Your task to perform on an android device: Go to accessibility settings Image 0: 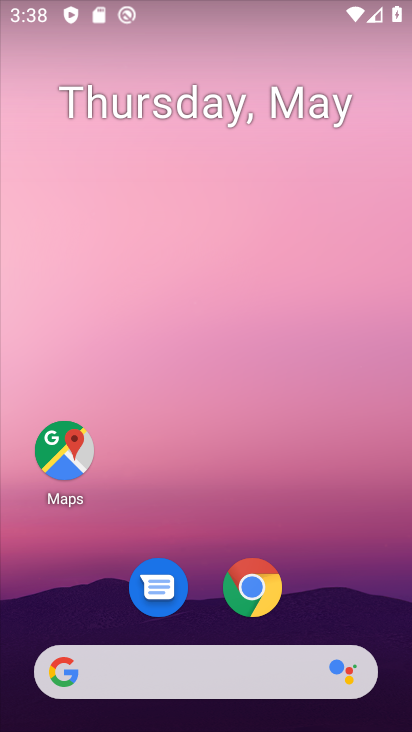
Step 0: drag from (343, 602) to (371, 214)
Your task to perform on an android device: Go to accessibility settings Image 1: 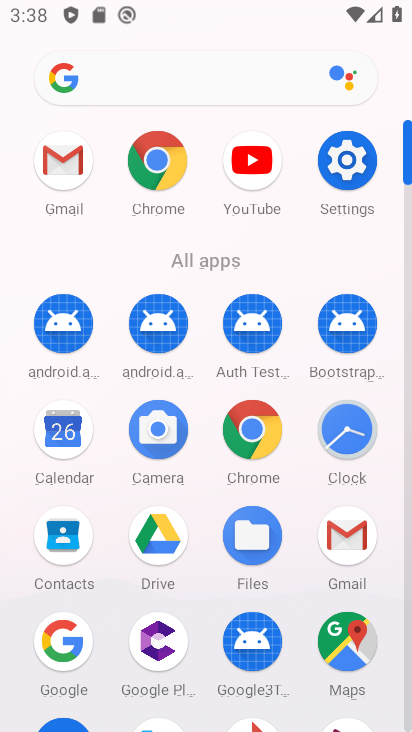
Step 1: click (340, 157)
Your task to perform on an android device: Go to accessibility settings Image 2: 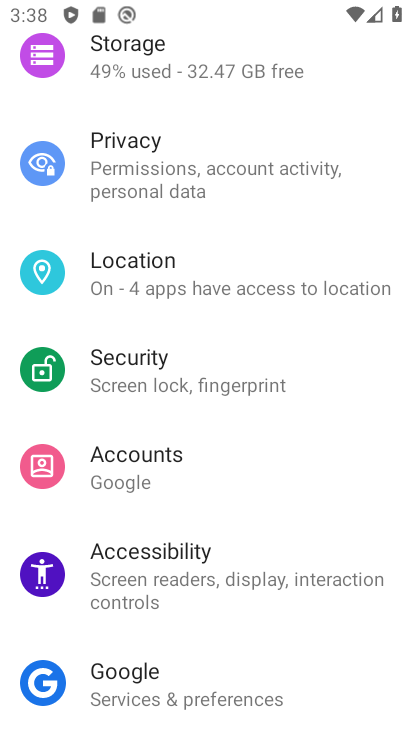
Step 2: drag from (364, 238) to (367, 339)
Your task to perform on an android device: Go to accessibility settings Image 3: 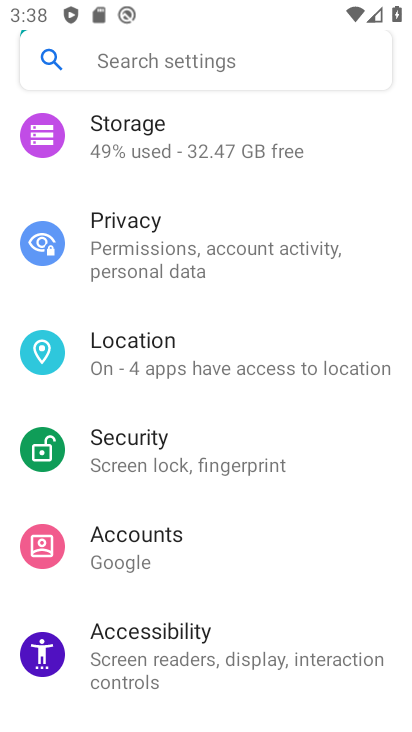
Step 3: drag from (366, 206) to (366, 340)
Your task to perform on an android device: Go to accessibility settings Image 4: 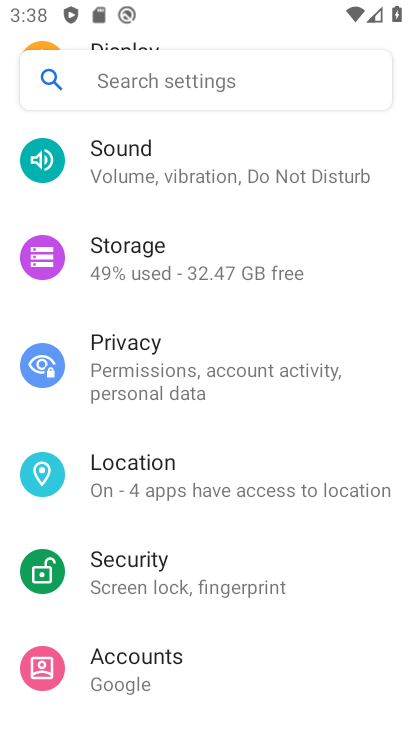
Step 4: drag from (377, 214) to (373, 336)
Your task to perform on an android device: Go to accessibility settings Image 5: 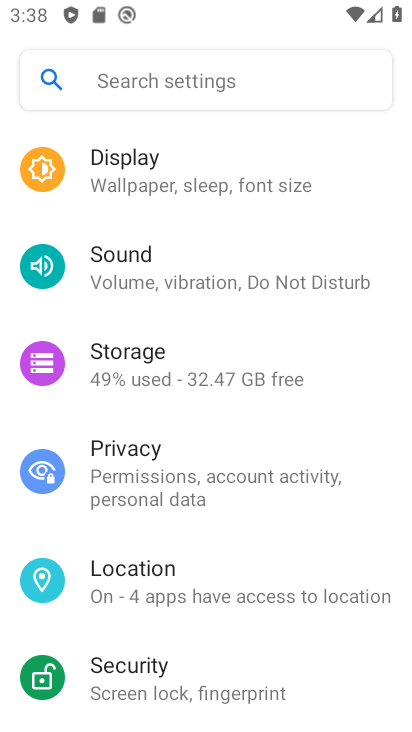
Step 5: drag from (364, 165) to (351, 297)
Your task to perform on an android device: Go to accessibility settings Image 6: 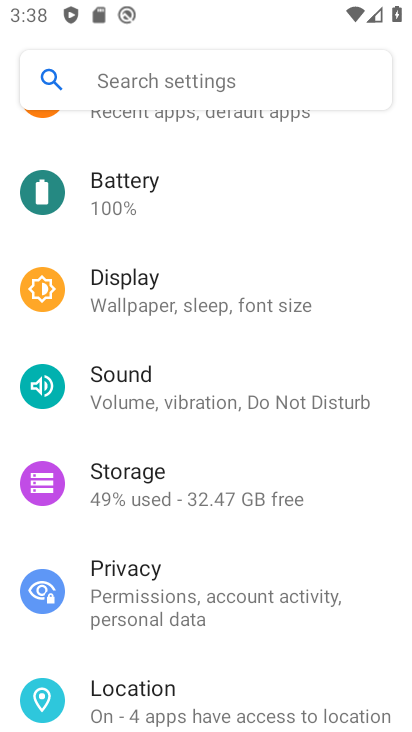
Step 6: drag from (350, 181) to (338, 312)
Your task to perform on an android device: Go to accessibility settings Image 7: 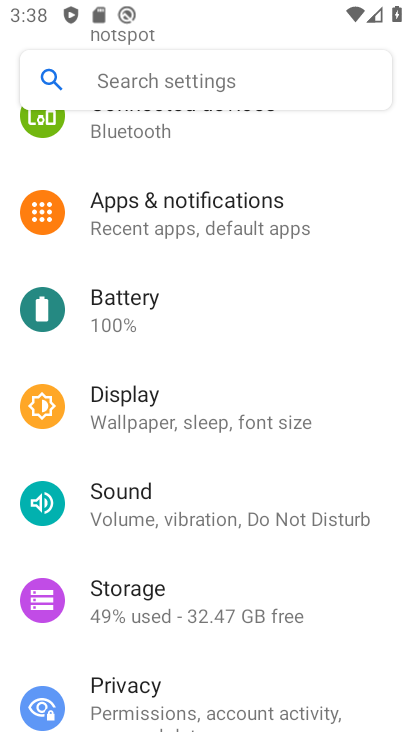
Step 7: drag from (343, 170) to (349, 324)
Your task to perform on an android device: Go to accessibility settings Image 8: 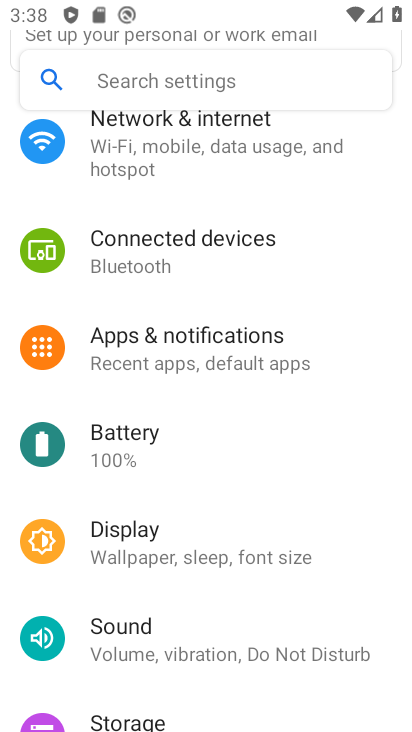
Step 8: drag from (356, 160) to (355, 296)
Your task to perform on an android device: Go to accessibility settings Image 9: 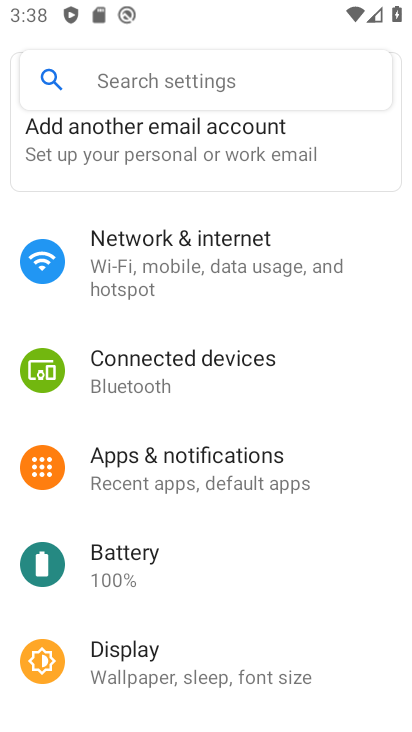
Step 9: drag from (354, 347) to (377, 209)
Your task to perform on an android device: Go to accessibility settings Image 10: 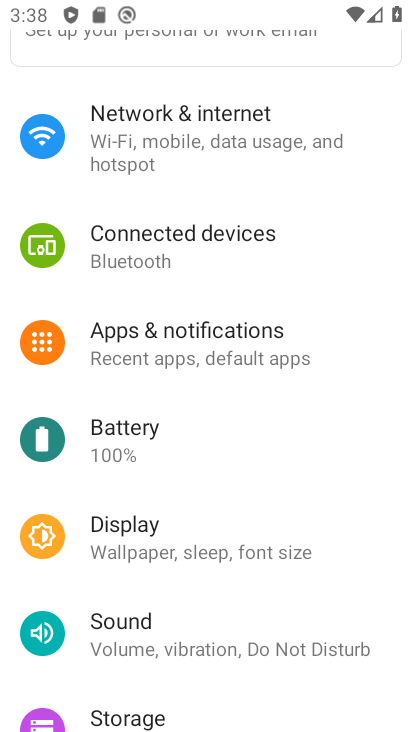
Step 10: drag from (357, 316) to (367, 181)
Your task to perform on an android device: Go to accessibility settings Image 11: 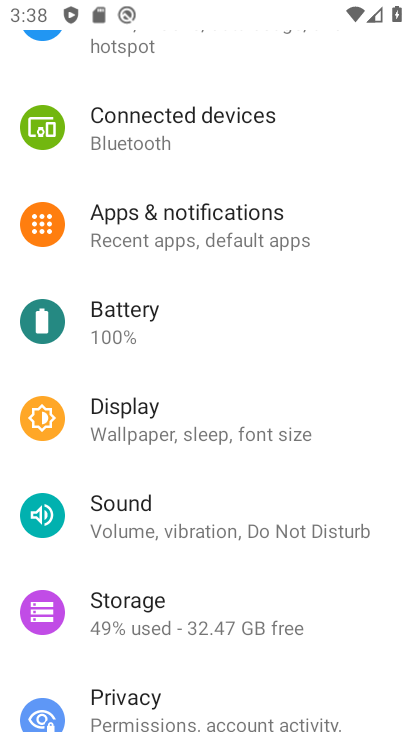
Step 11: drag from (364, 359) to (364, 223)
Your task to perform on an android device: Go to accessibility settings Image 12: 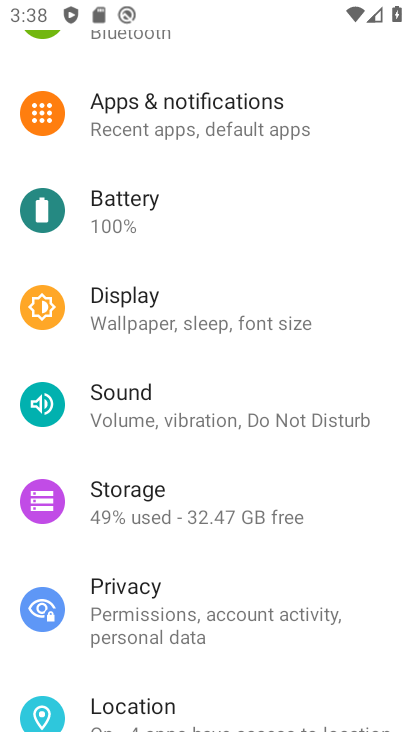
Step 12: drag from (355, 373) to (370, 230)
Your task to perform on an android device: Go to accessibility settings Image 13: 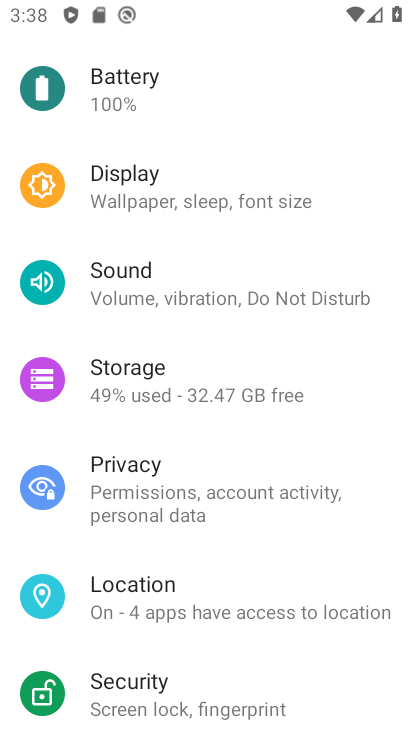
Step 13: drag from (361, 381) to (364, 252)
Your task to perform on an android device: Go to accessibility settings Image 14: 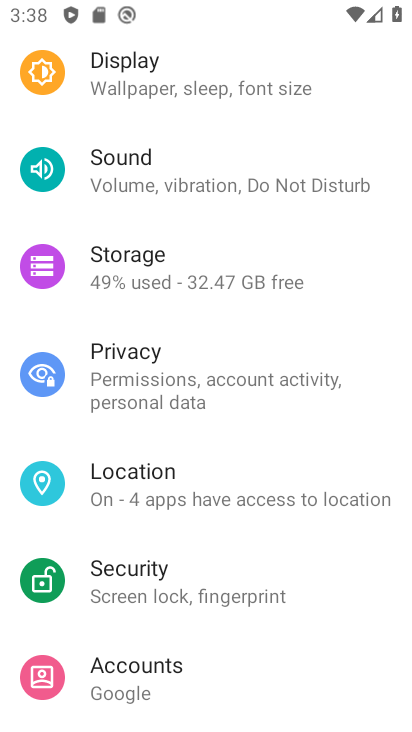
Step 14: drag from (353, 406) to (359, 273)
Your task to perform on an android device: Go to accessibility settings Image 15: 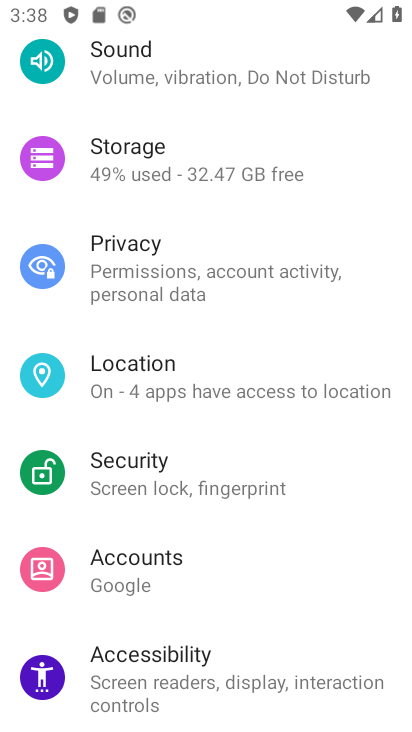
Step 15: drag from (338, 465) to (350, 250)
Your task to perform on an android device: Go to accessibility settings Image 16: 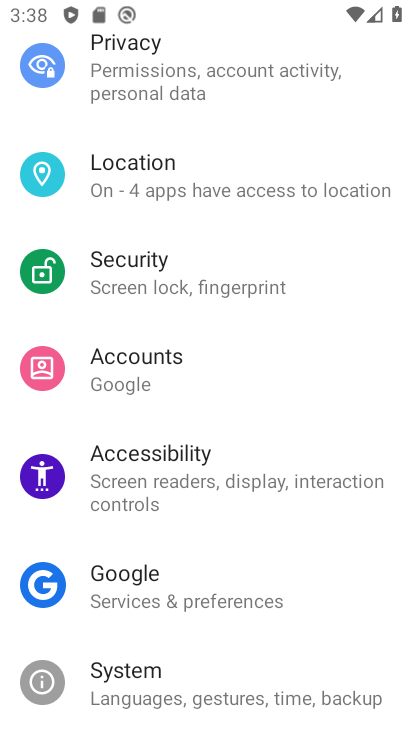
Step 16: click (325, 486)
Your task to perform on an android device: Go to accessibility settings Image 17: 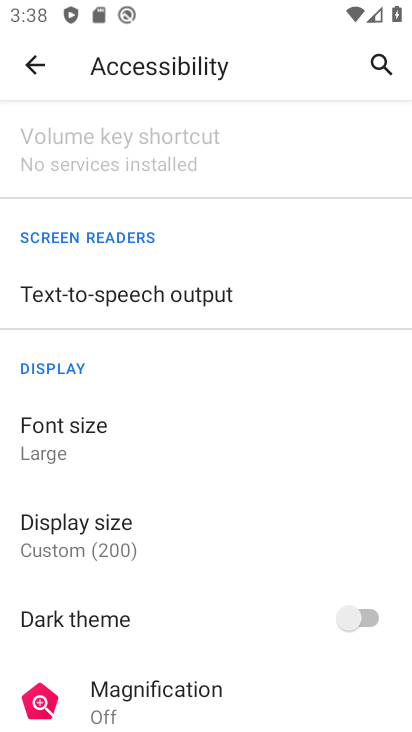
Step 17: task complete